Your task to perform on an android device: change the clock display to digital Image 0: 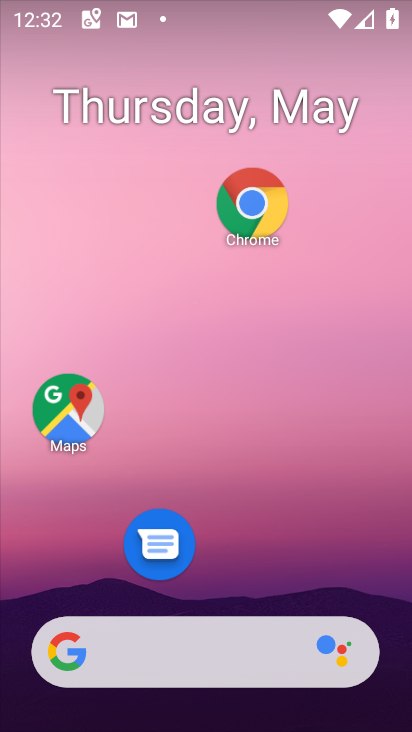
Step 0: drag from (237, 653) to (228, 0)
Your task to perform on an android device: change the clock display to digital Image 1: 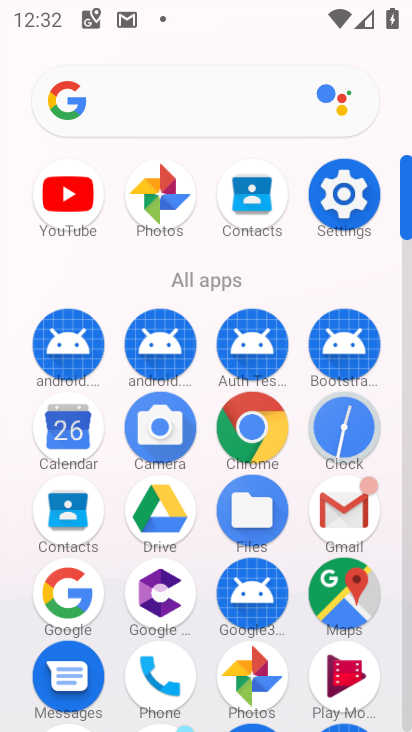
Step 1: click (360, 434)
Your task to perform on an android device: change the clock display to digital Image 2: 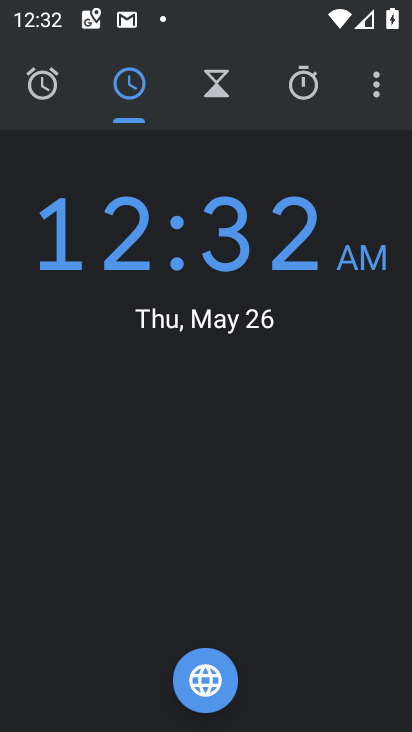
Step 2: click (374, 88)
Your task to perform on an android device: change the clock display to digital Image 3: 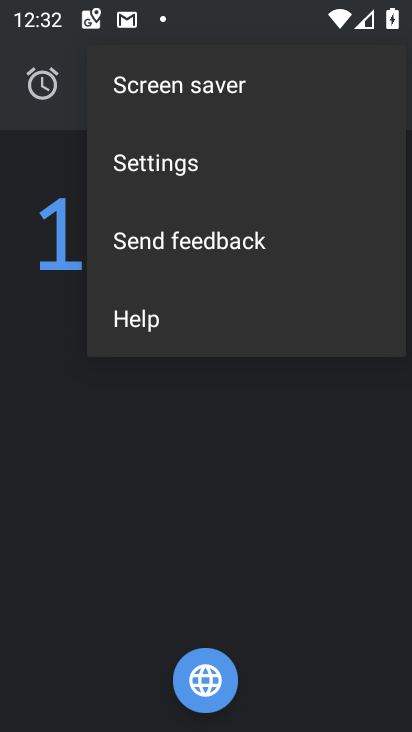
Step 3: click (171, 157)
Your task to perform on an android device: change the clock display to digital Image 4: 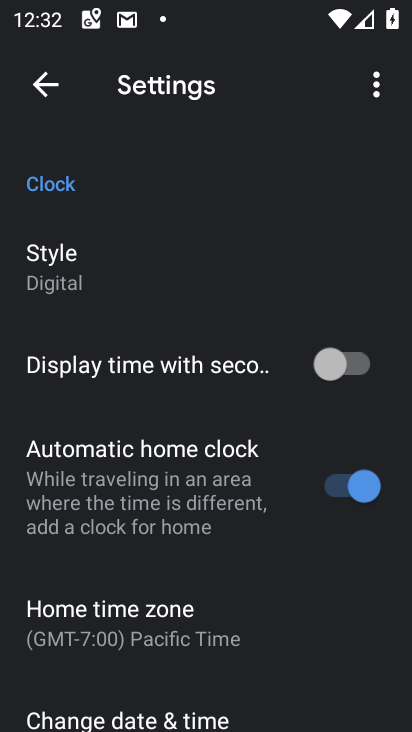
Step 4: click (70, 262)
Your task to perform on an android device: change the clock display to digital Image 5: 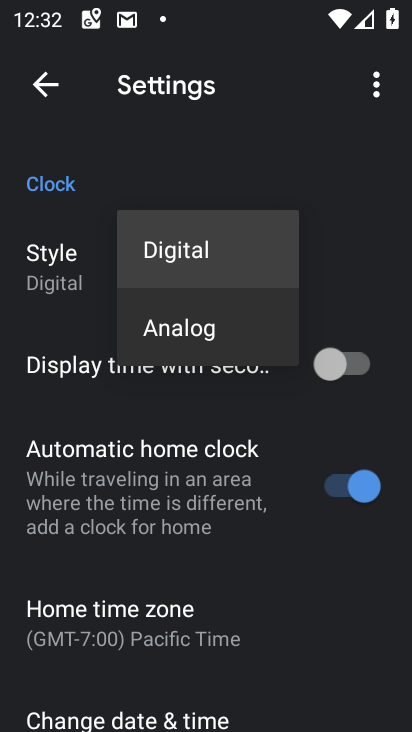
Step 5: task complete